Your task to perform on an android device: clear history in the chrome app Image 0: 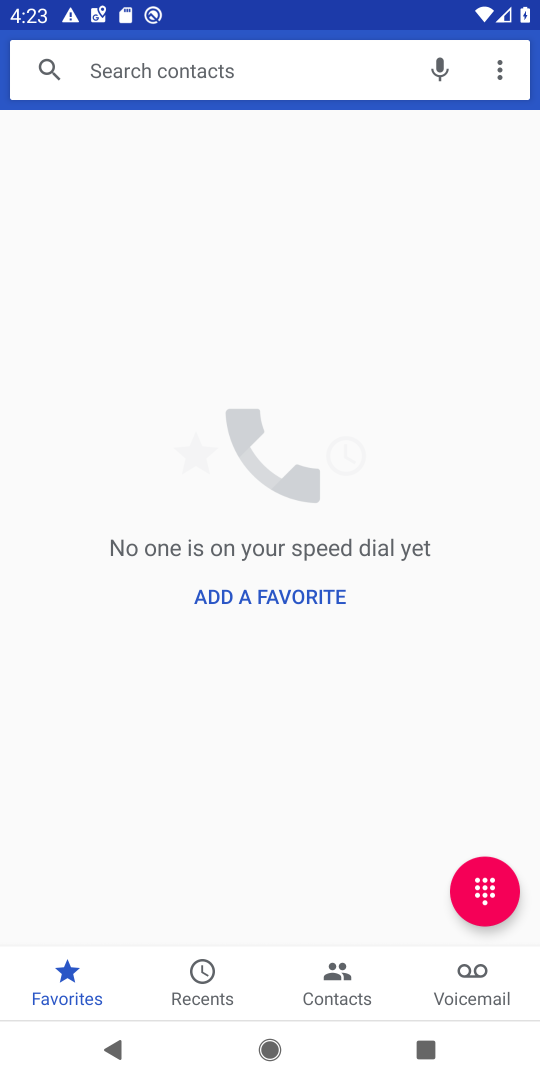
Step 0: press back button
Your task to perform on an android device: clear history in the chrome app Image 1: 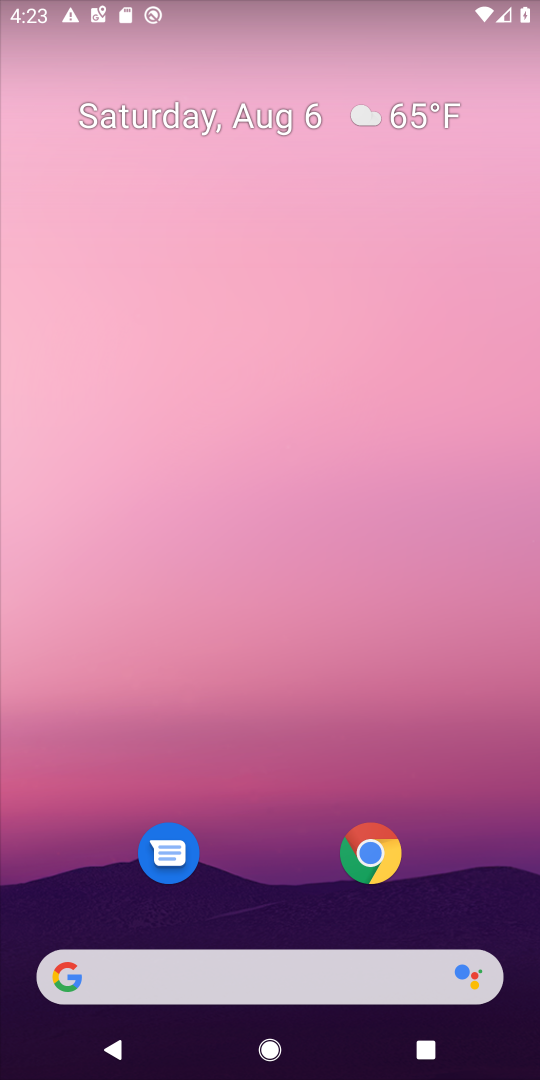
Step 1: click (352, 837)
Your task to perform on an android device: clear history in the chrome app Image 2: 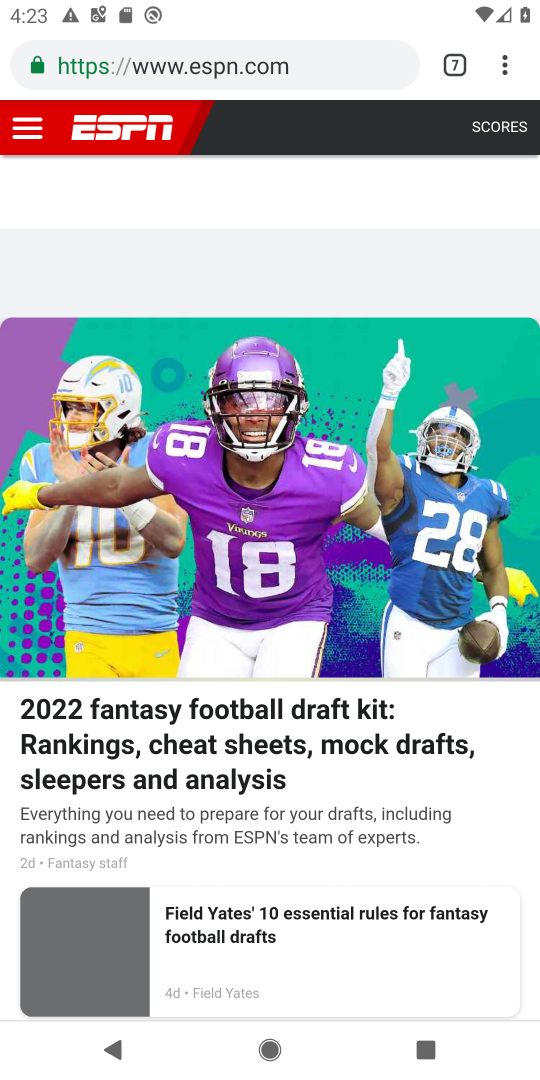
Step 2: drag from (504, 60) to (267, 359)
Your task to perform on an android device: clear history in the chrome app Image 3: 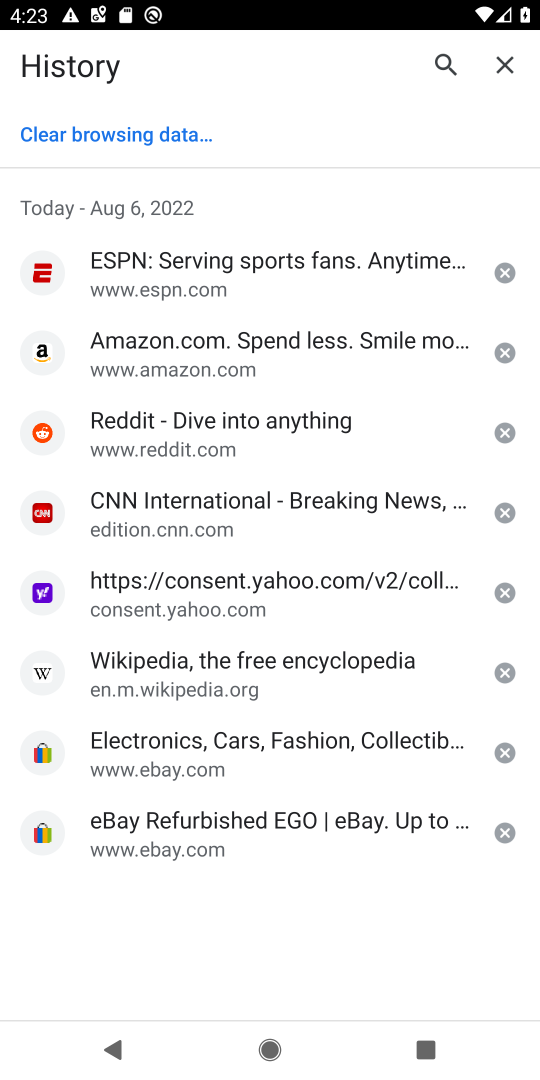
Step 3: click (105, 125)
Your task to perform on an android device: clear history in the chrome app Image 4: 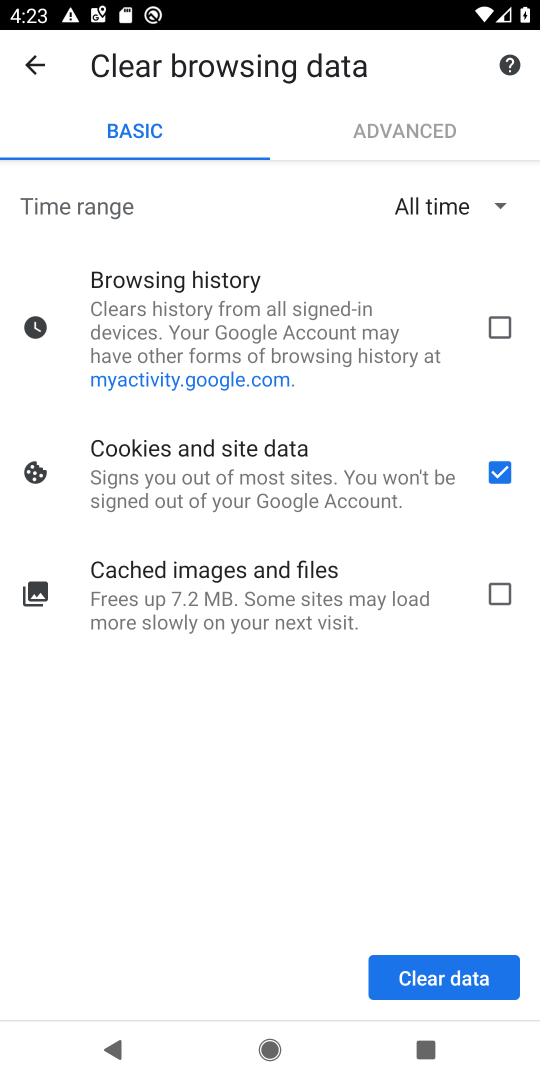
Step 4: click (508, 315)
Your task to perform on an android device: clear history in the chrome app Image 5: 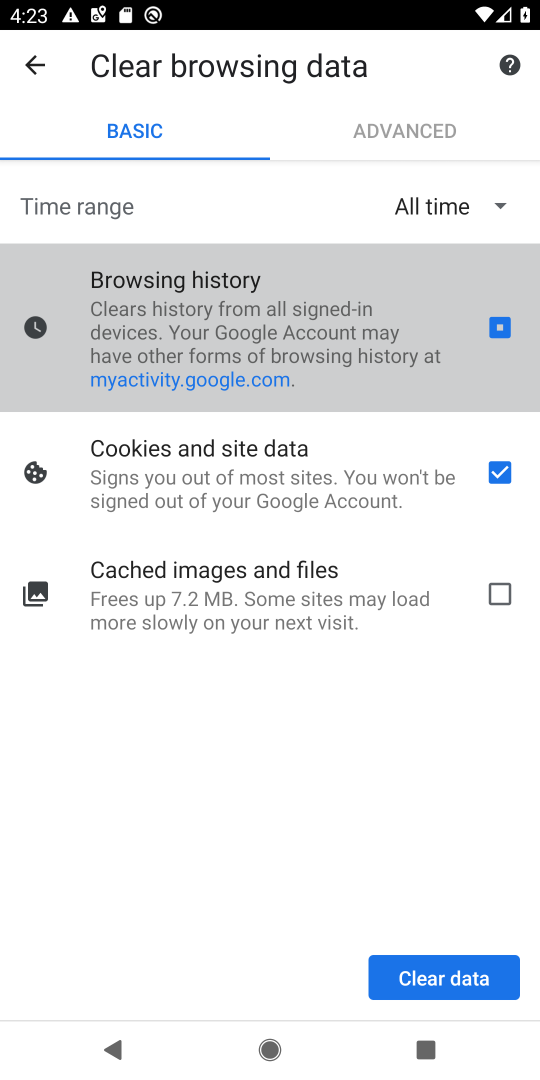
Step 5: click (483, 588)
Your task to perform on an android device: clear history in the chrome app Image 6: 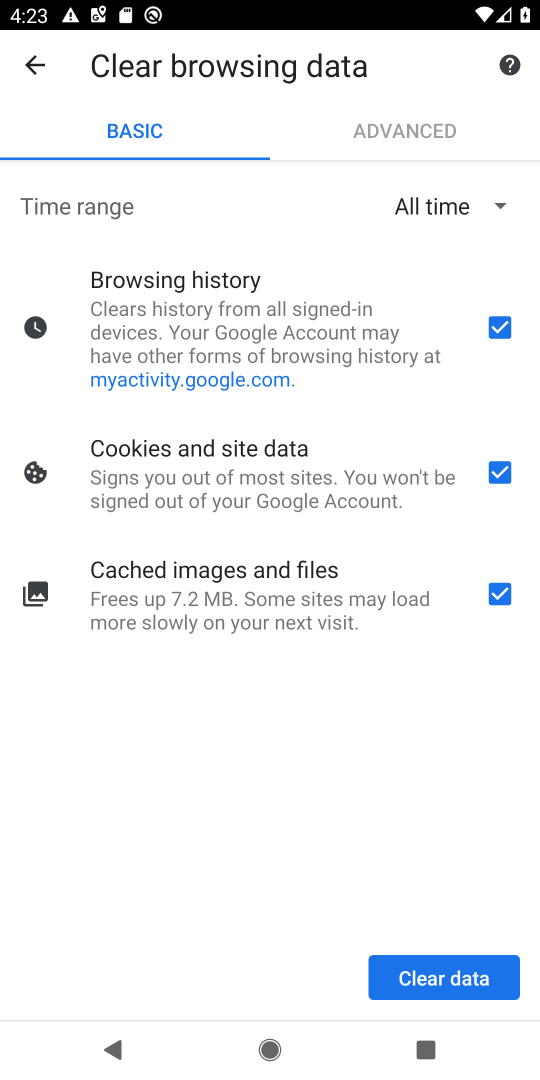
Step 6: click (414, 973)
Your task to perform on an android device: clear history in the chrome app Image 7: 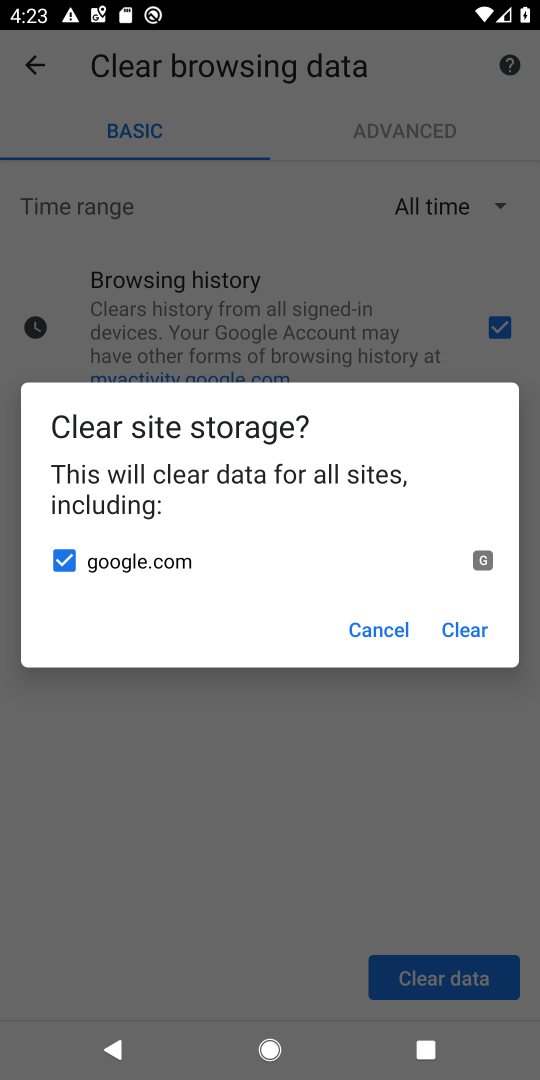
Step 7: click (470, 629)
Your task to perform on an android device: clear history in the chrome app Image 8: 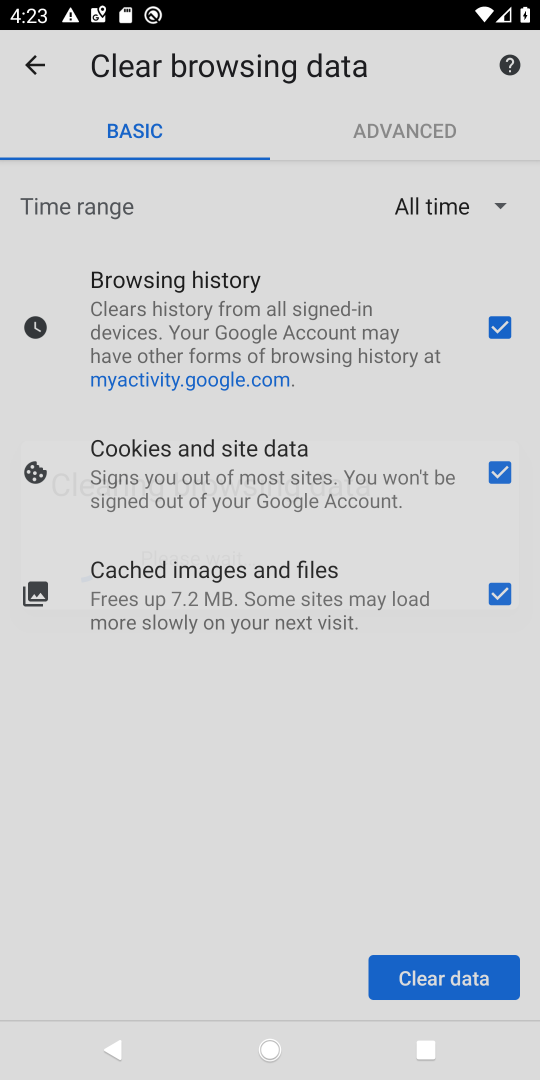
Step 8: task complete